Your task to perform on an android device: Go to settings Image 0: 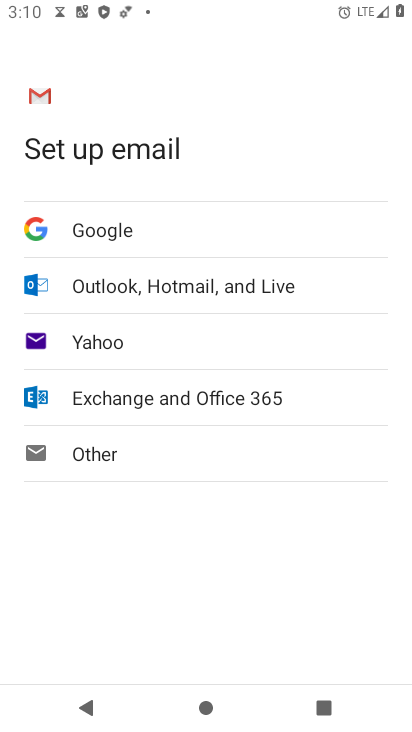
Step 0: press home button
Your task to perform on an android device: Go to settings Image 1: 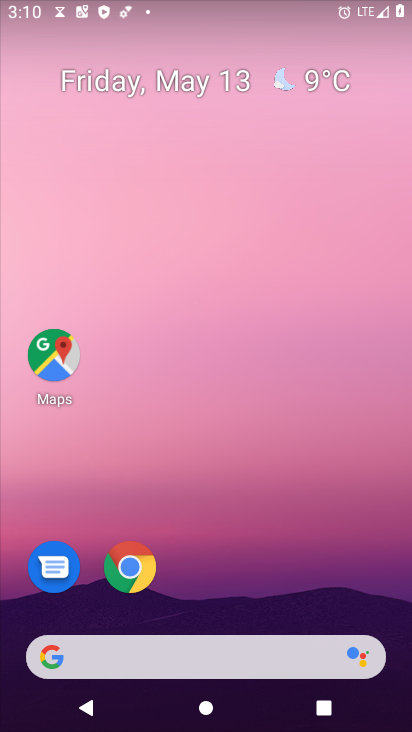
Step 1: drag from (291, 588) to (257, 5)
Your task to perform on an android device: Go to settings Image 2: 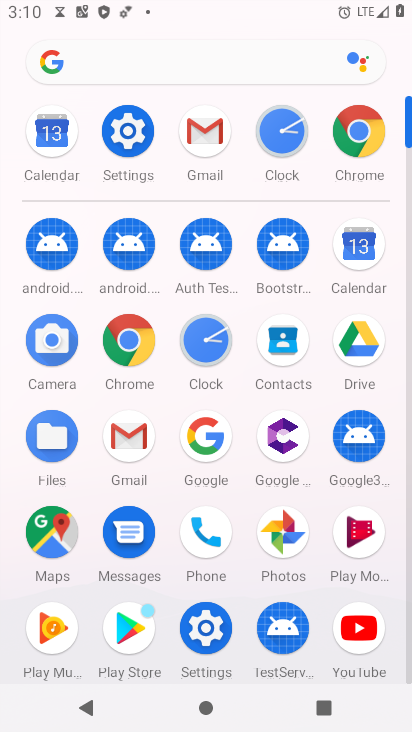
Step 2: click (126, 134)
Your task to perform on an android device: Go to settings Image 3: 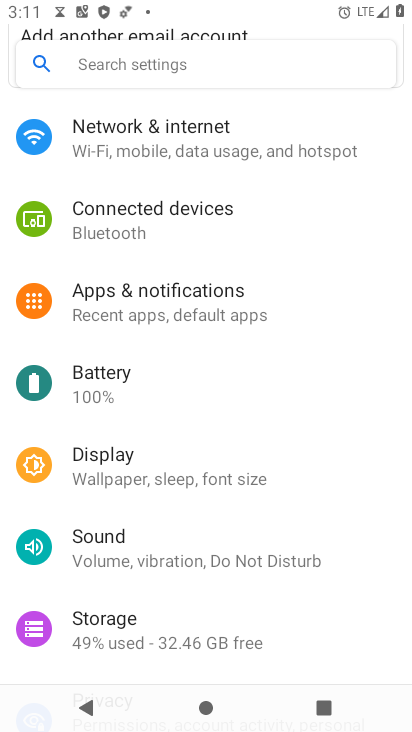
Step 3: task complete